Your task to perform on an android device: Go to internet settings Image 0: 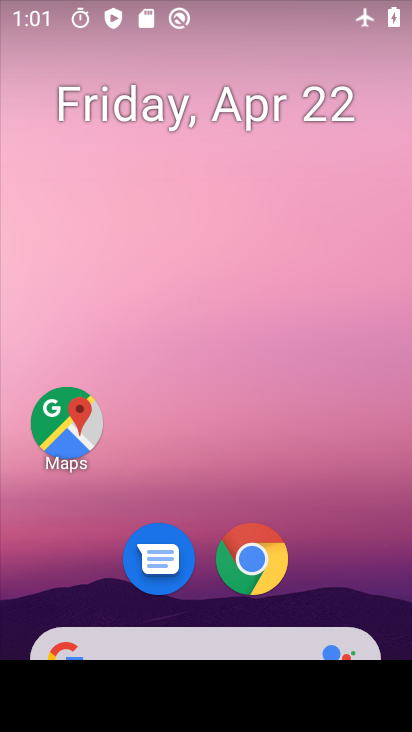
Step 0: drag from (386, 593) to (372, 130)
Your task to perform on an android device: Go to internet settings Image 1: 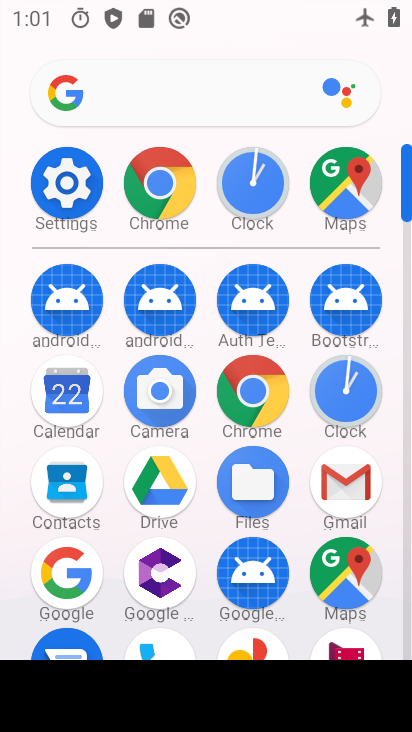
Step 1: click (75, 183)
Your task to perform on an android device: Go to internet settings Image 2: 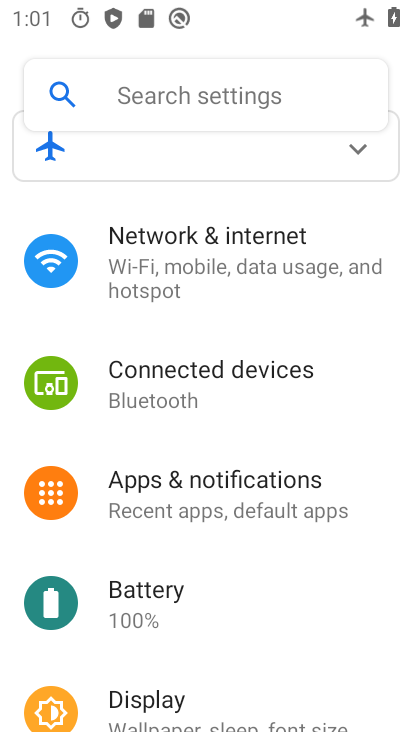
Step 2: drag from (340, 592) to (359, 362)
Your task to perform on an android device: Go to internet settings Image 3: 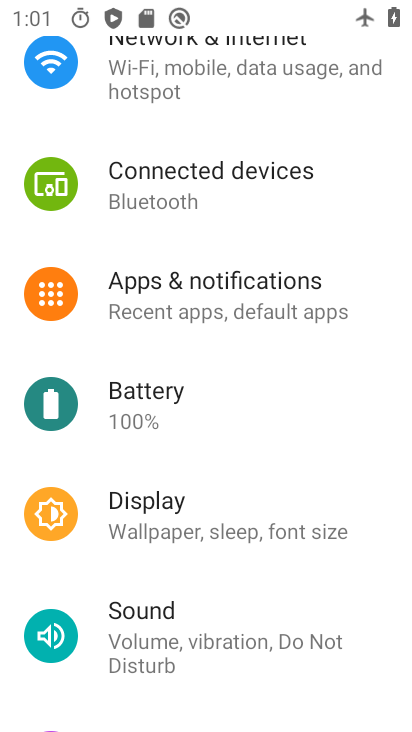
Step 3: drag from (364, 619) to (371, 352)
Your task to perform on an android device: Go to internet settings Image 4: 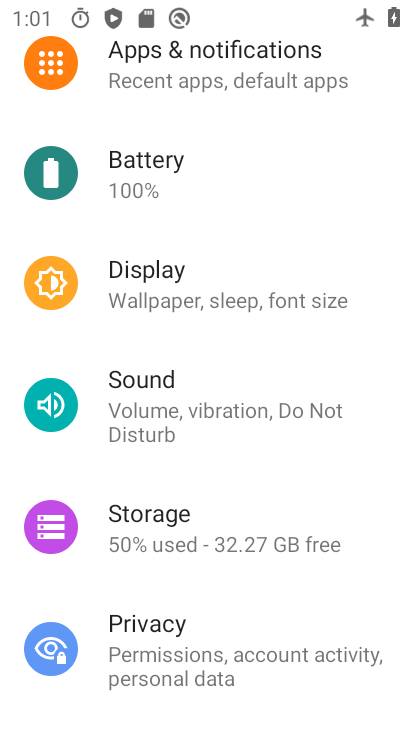
Step 4: drag from (352, 592) to (370, 179)
Your task to perform on an android device: Go to internet settings Image 5: 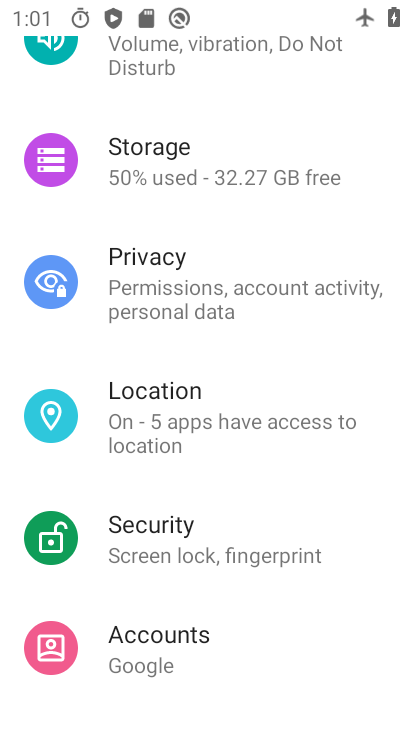
Step 5: drag from (357, 368) to (350, 553)
Your task to perform on an android device: Go to internet settings Image 6: 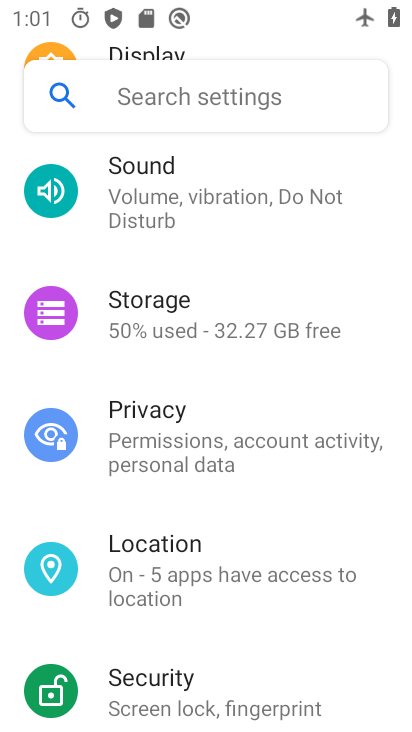
Step 6: drag from (378, 269) to (353, 542)
Your task to perform on an android device: Go to internet settings Image 7: 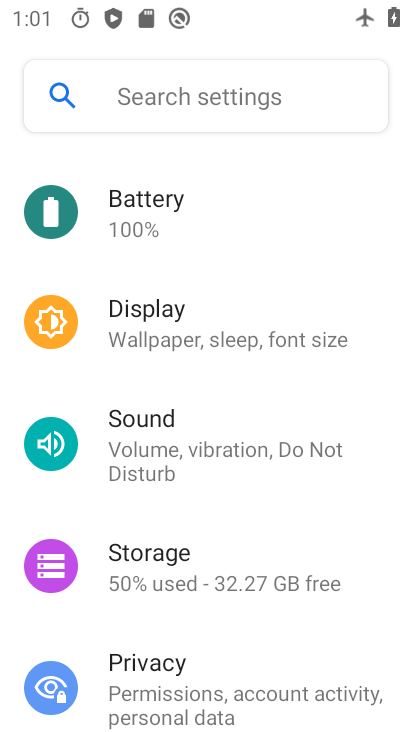
Step 7: drag from (377, 281) to (366, 484)
Your task to perform on an android device: Go to internet settings Image 8: 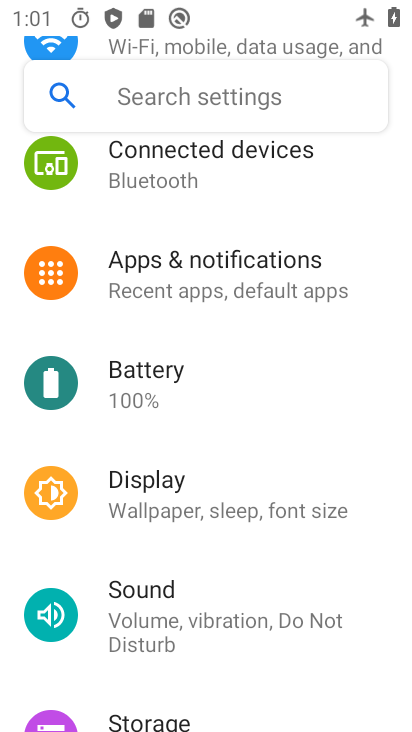
Step 8: drag from (365, 242) to (357, 445)
Your task to perform on an android device: Go to internet settings Image 9: 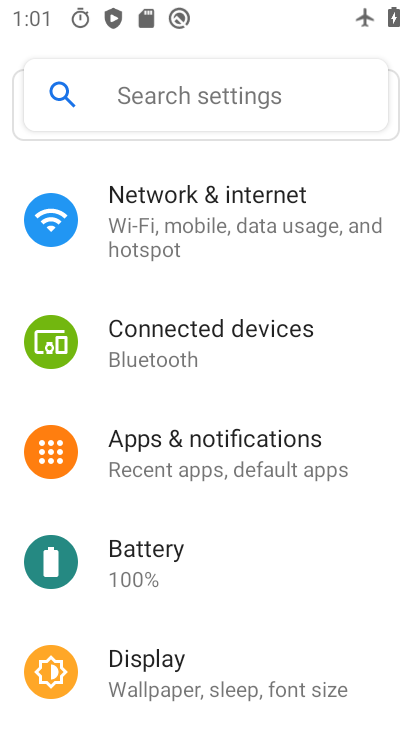
Step 9: click (323, 233)
Your task to perform on an android device: Go to internet settings Image 10: 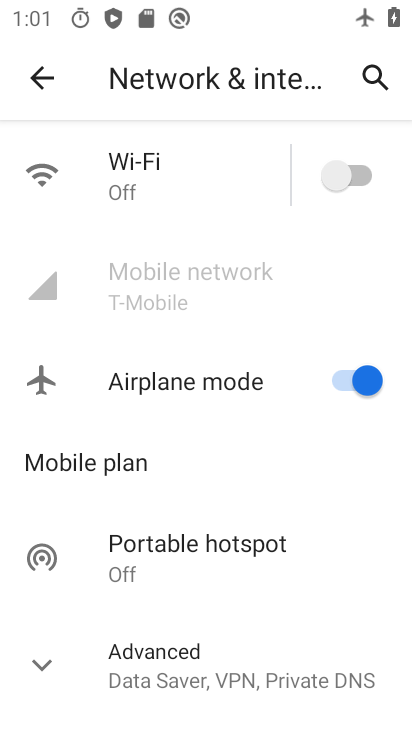
Step 10: task complete